Your task to perform on an android device: turn off notifications settings in the gmail app Image 0: 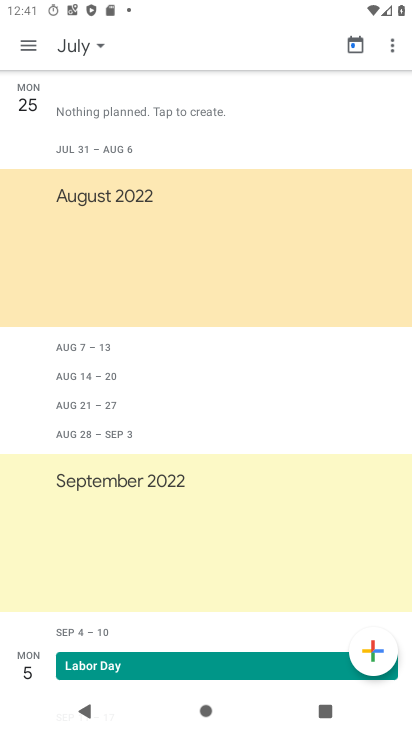
Step 0: press home button
Your task to perform on an android device: turn off notifications settings in the gmail app Image 1: 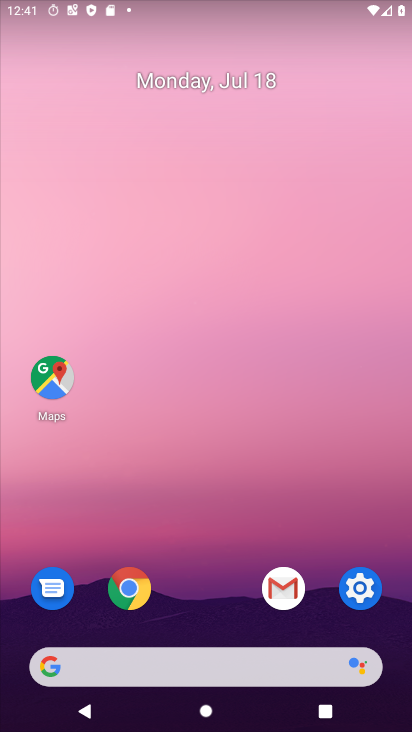
Step 1: click (339, 589)
Your task to perform on an android device: turn off notifications settings in the gmail app Image 2: 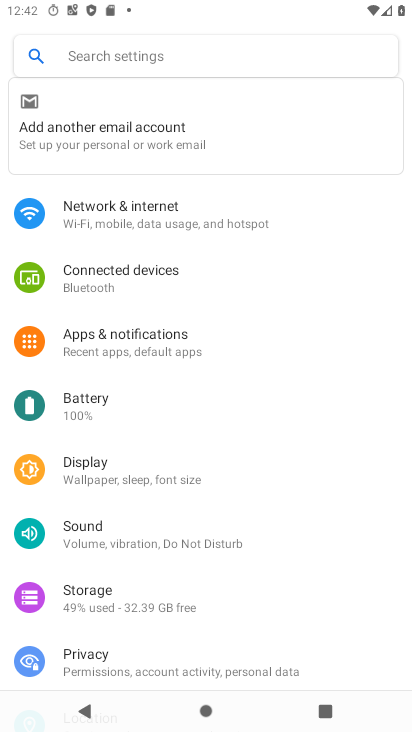
Step 2: press home button
Your task to perform on an android device: turn off notifications settings in the gmail app Image 3: 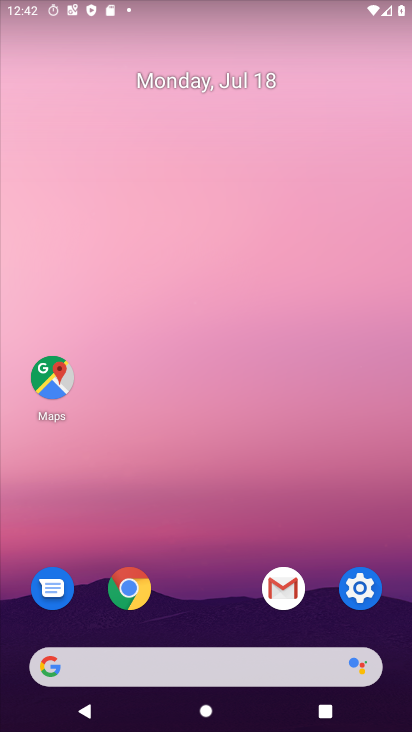
Step 3: click (297, 587)
Your task to perform on an android device: turn off notifications settings in the gmail app Image 4: 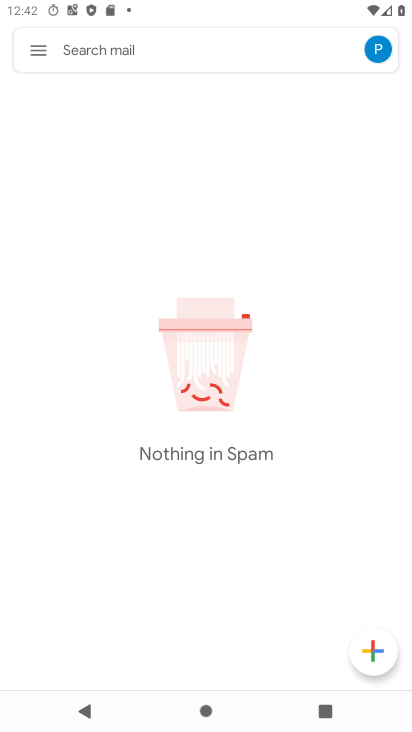
Step 4: click (47, 48)
Your task to perform on an android device: turn off notifications settings in the gmail app Image 5: 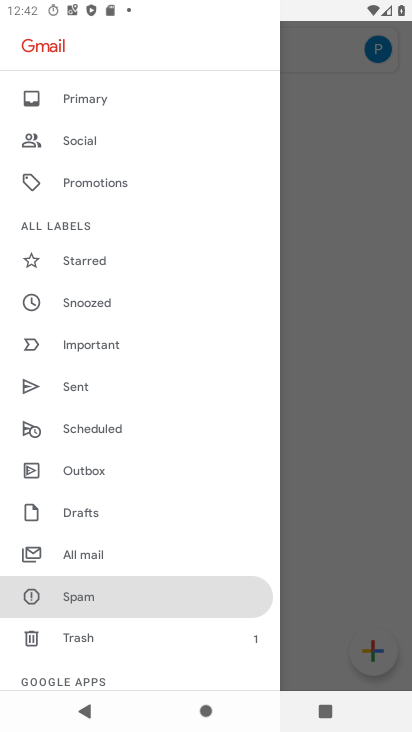
Step 5: drag from (131, 551) to (143, 182)
Your task to perform on an android device: turn off notifications settings in the gmail app Image 6: 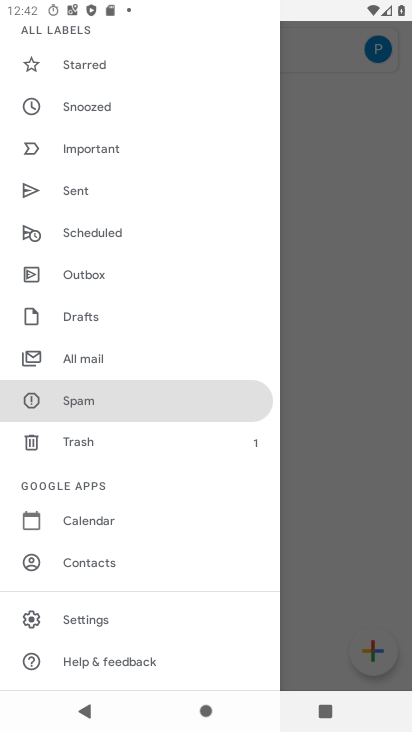
Step 6: click (93, 613)
Your task to perform on an android device: turn off notifications settings in the gmail app Image 7: 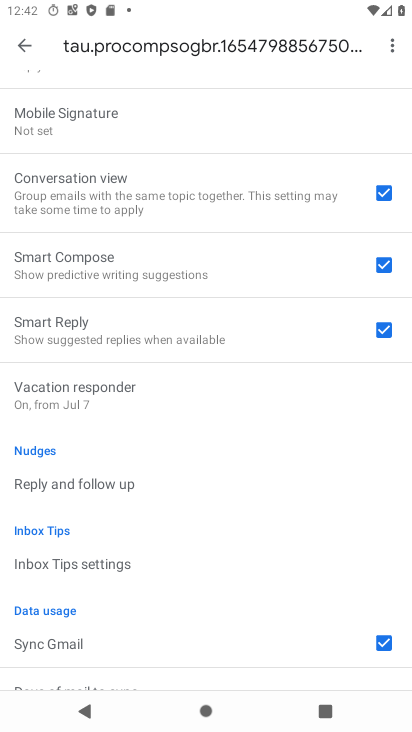
Step 7: drag from (98, 130) to (132, 541)
Your task to perform on an android device: turn off notifications settings in the gmail app Image 8: 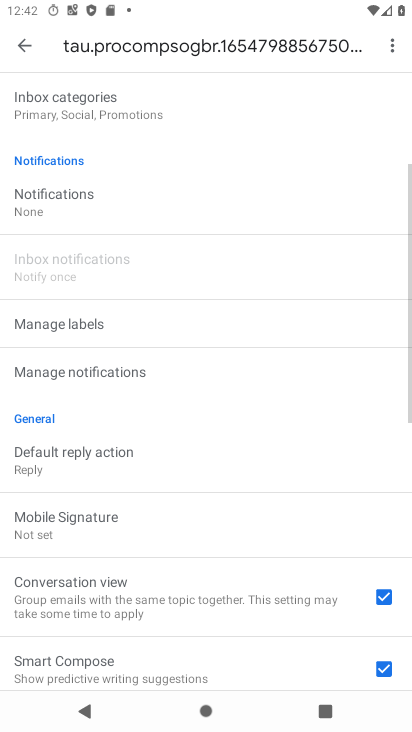
Step 8: click (106, 191)
Your task to perform on an android device: turn off notifications settings in the gmail app Image 9: 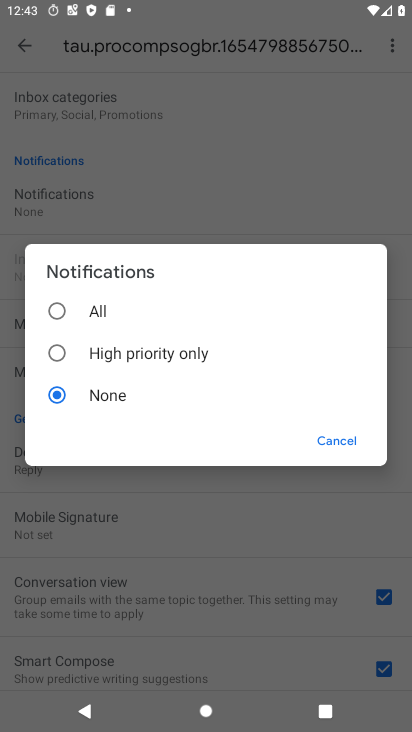
Step 9: task complete